Your task to perform on an android device: toggle data saver in the chrome app Image 0: 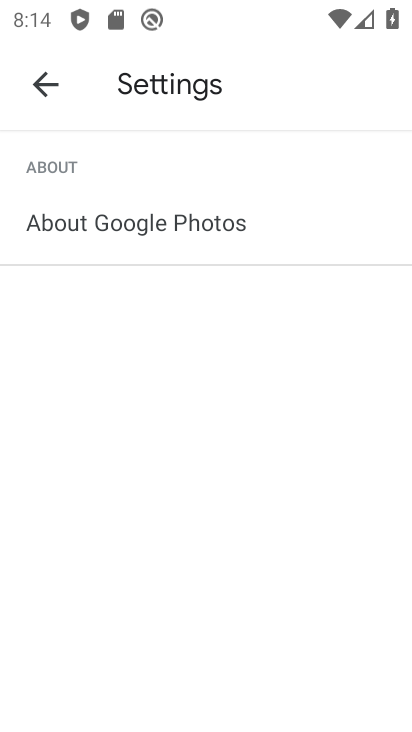
Step 0: press home button
Your task to perform on an android device: toggle data saver in the chrome app Image 1: 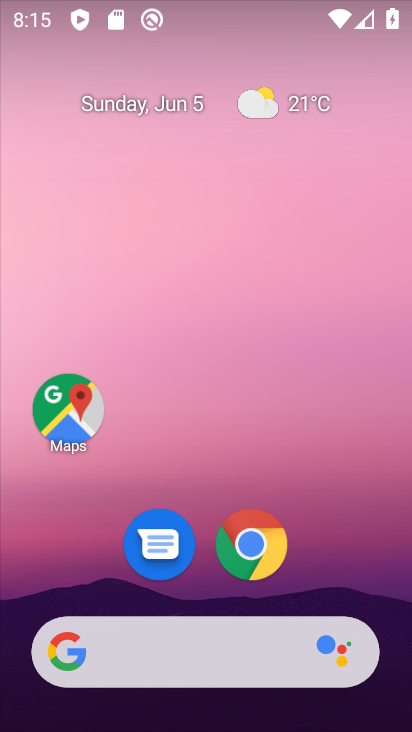
Step 1: click (260, 538)
Your task to perform on an android device: toggle data saver in the chrome app Image 2: 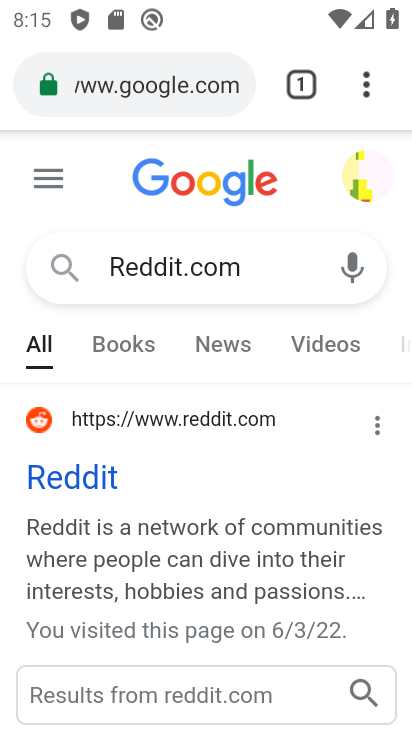
Step 2: click (370, 83)
Your task to perform on an android device: toggle data saver in the chrome app Image 3: 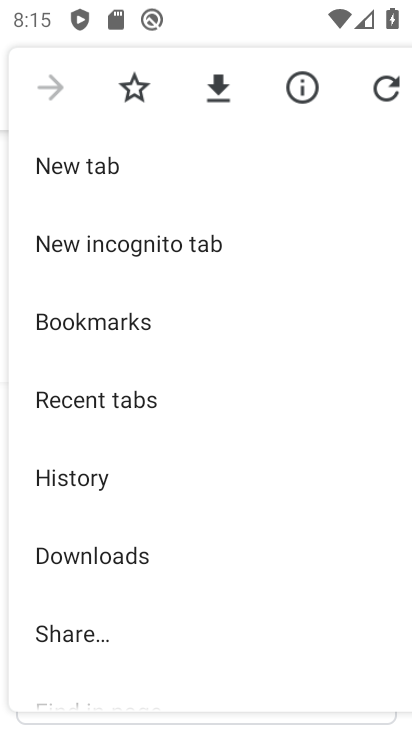
Step 3: drag from (304, 633) to (227, 198)
Your task to perform on an android device: toggle data saver in the chrome app Image 4: 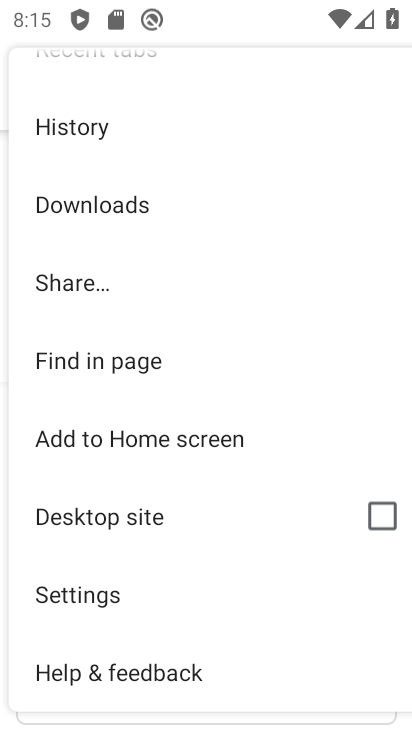
Step 4: click (81, 594)
Your task to perform on an android device: toggle data saver in the chrome app Image 5: 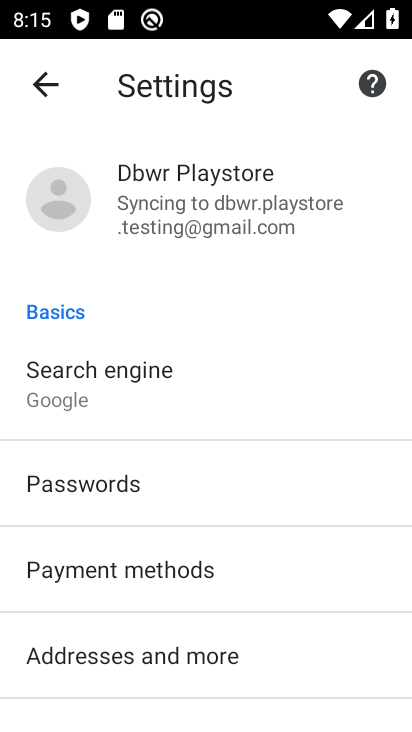
Step 5: drag from (211, 662) to (233, 252)
Your task to perform on an android device: toggle data saver in the chrome app Image 6: 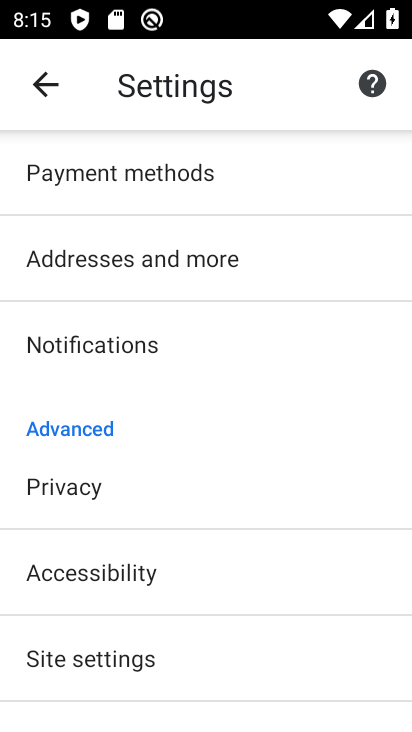
Step 6: drag from (242, 677) to (205, 199)
Your task to perform on an android device: toggle data saver in the chrome app Image 7: 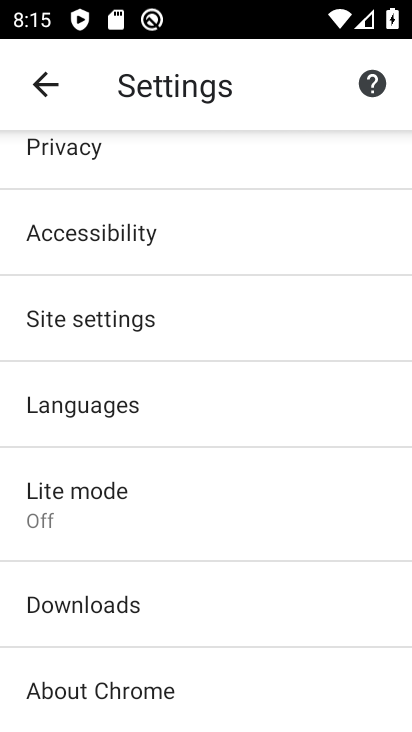
Step 7: click (89, 514)
Your task to perform on an android device: toggle data saver in the chrome app Image 8: 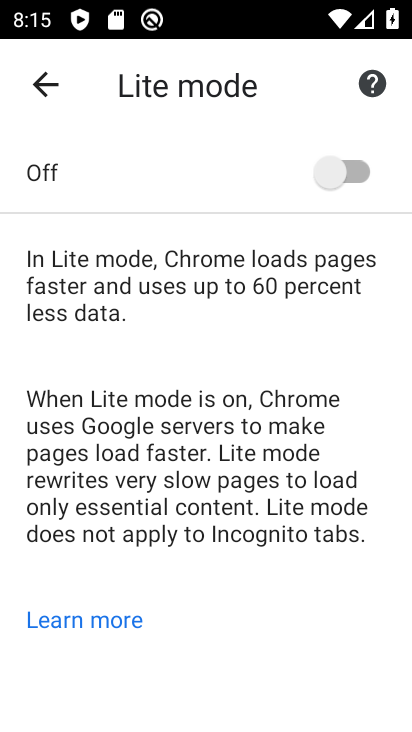
Step 8: click (361, 163)
Your task to perform on an android device: toggle data saver in the chrome app Image 9: 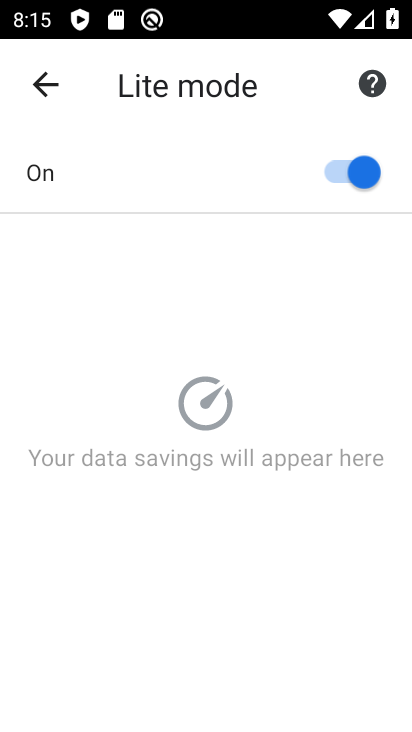
Step 9: task complete